Your task to perform on an android device: delete a single message in the gmail app Image 0: 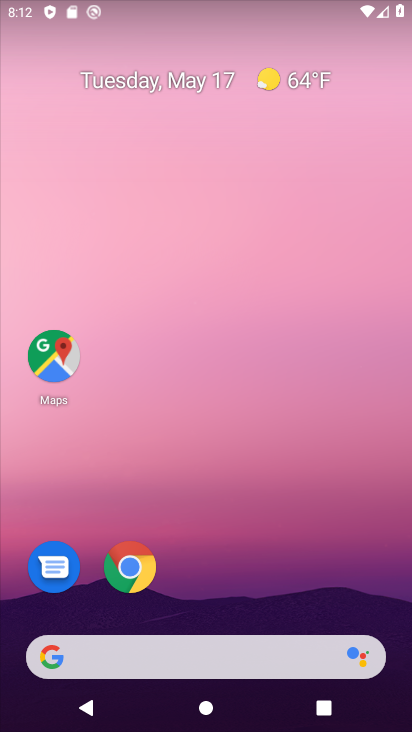
Step 0: drag from (397, 634) to (231, 13)
Your task to perform on an android device: delete a single message in the gmail app Image 1: 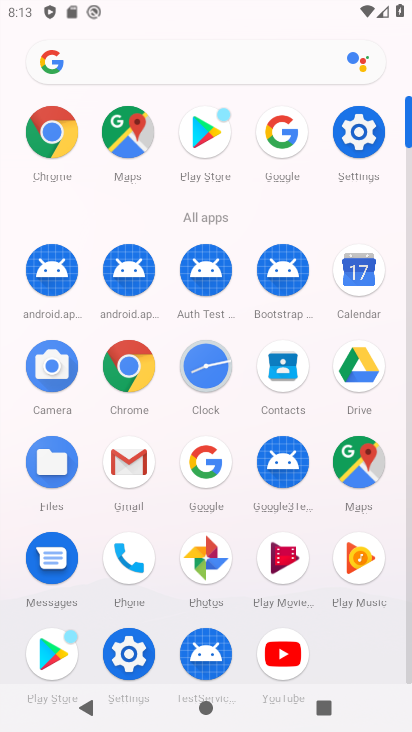
Step 1: click (132, 477)
Your task to perform on an android device: delete a single message in the gmail app Image 2: 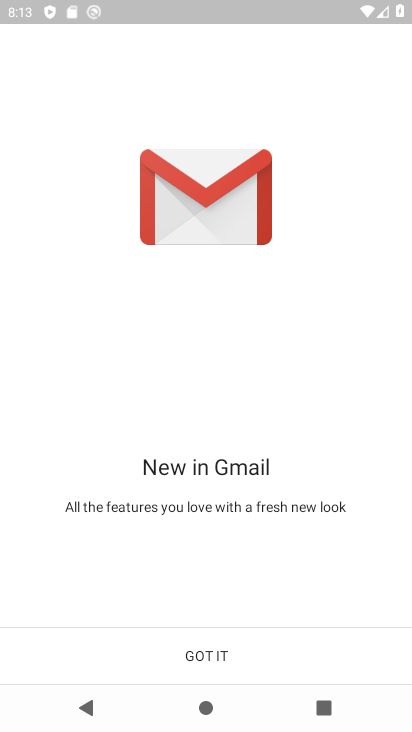
Step 2: click (244, 640)
Your task to perform on an android device: delete a single message in the gmail app Image 3: 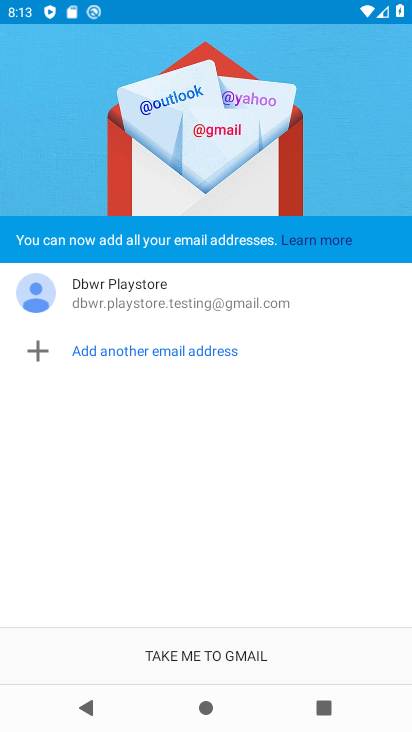
Step 3: click (242, 639)
Your task to perform on an android device: delete a single message in the gmail app Image 4: 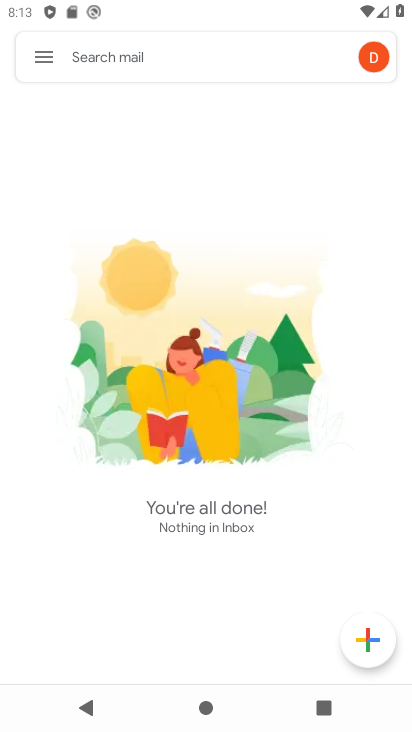
Step 4: task complete